Your task to perform on an android device: open app "Gmail" Image 0: 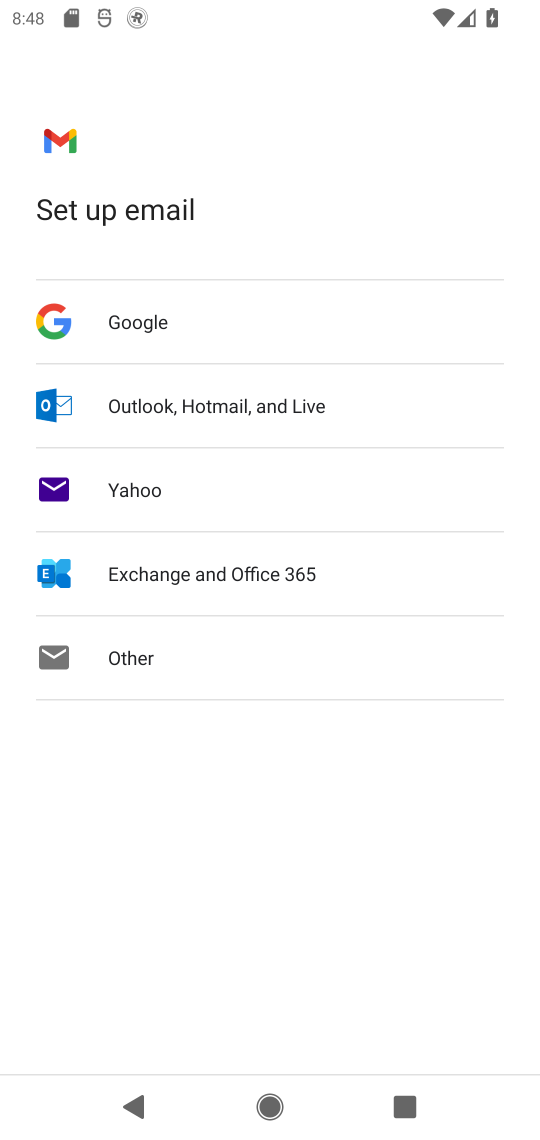
Step 0: press home button
Your task to perform on an android device: open app "Gmail" Image 1: 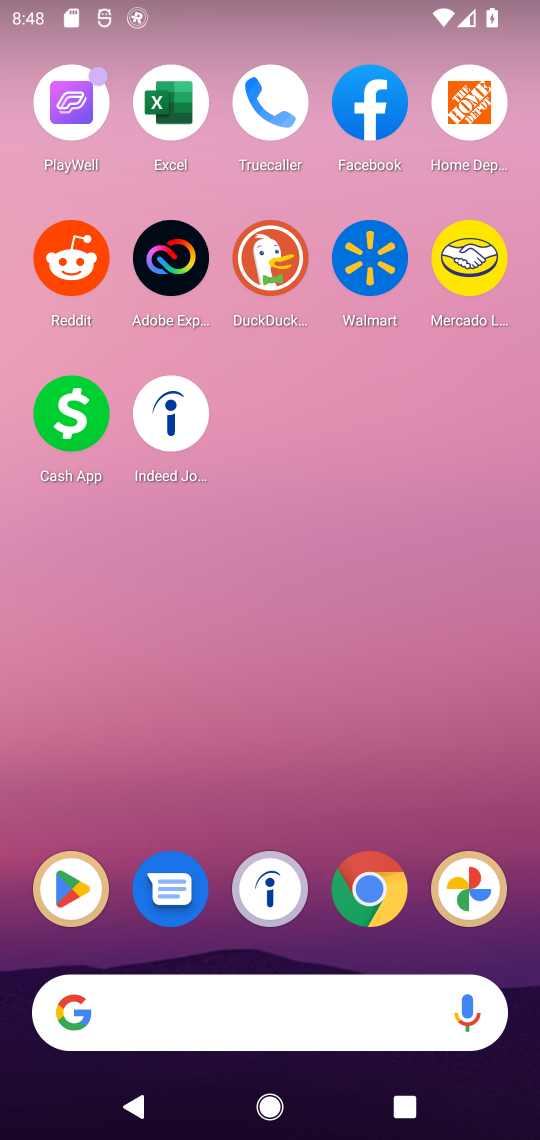
Step 1: press home button
Your task to perform on an android device: open app "Gmail" Image 2: 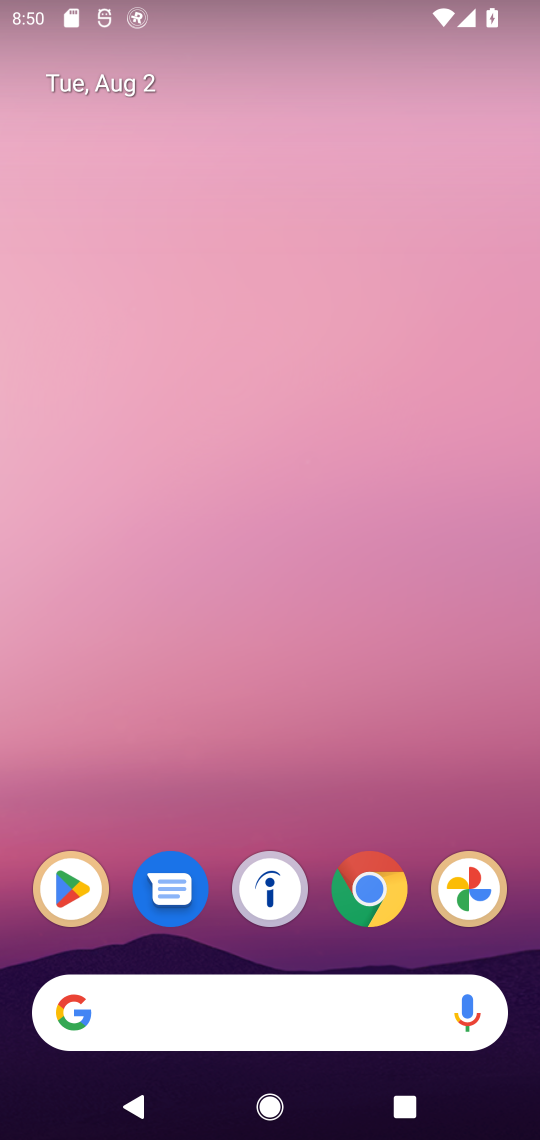
Step 2: click (67, 885)
Your task to perform on an android device: open app "Gmail" Image 3: 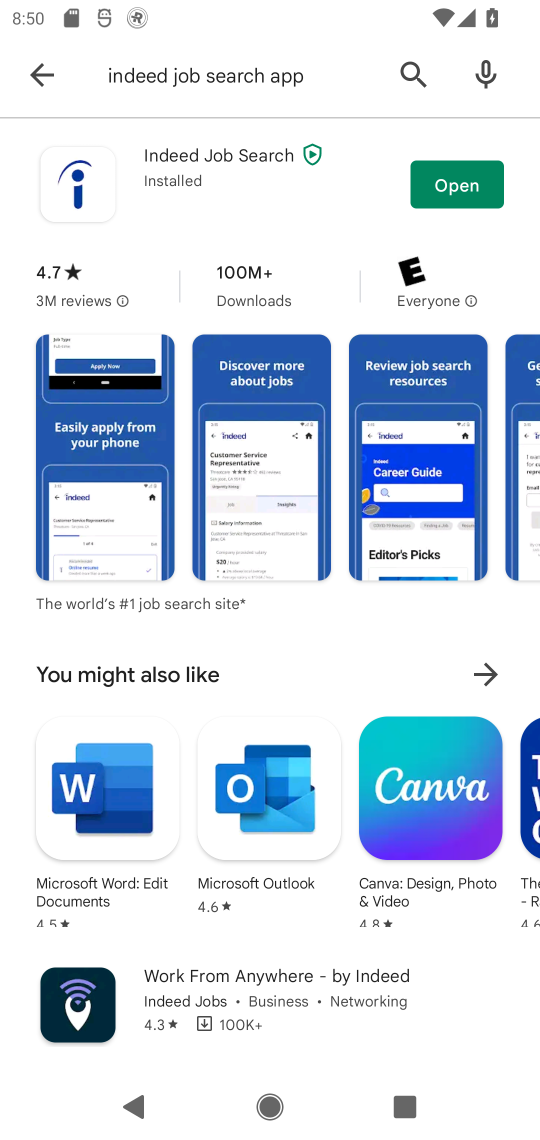
Step 3: click (414, 80)
Your task to perform on an android device: open app "Gmail" Image 4: 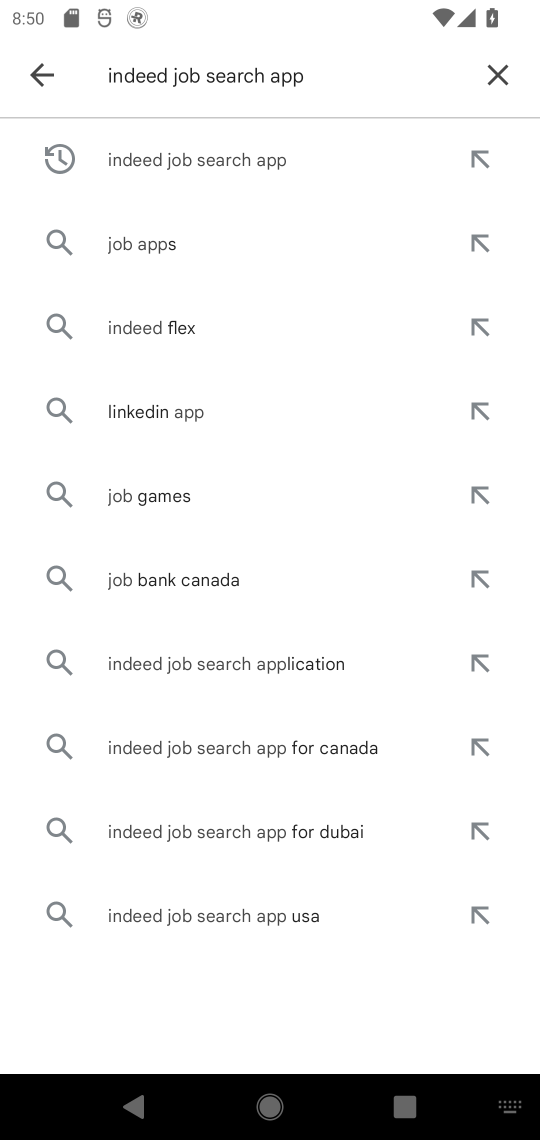
Step 4: click (488, 67)
Your task to perform on an android device: open app "Gmail" Image 5: 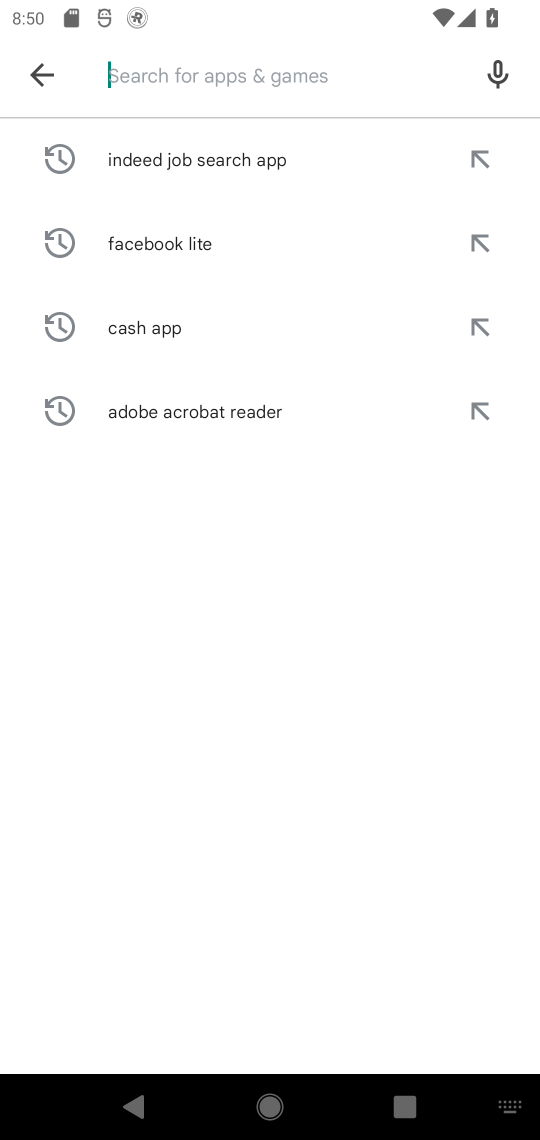
Step 5: type "Gmail"
Your task to perform on an android device: open app "Gmail" Image 6: 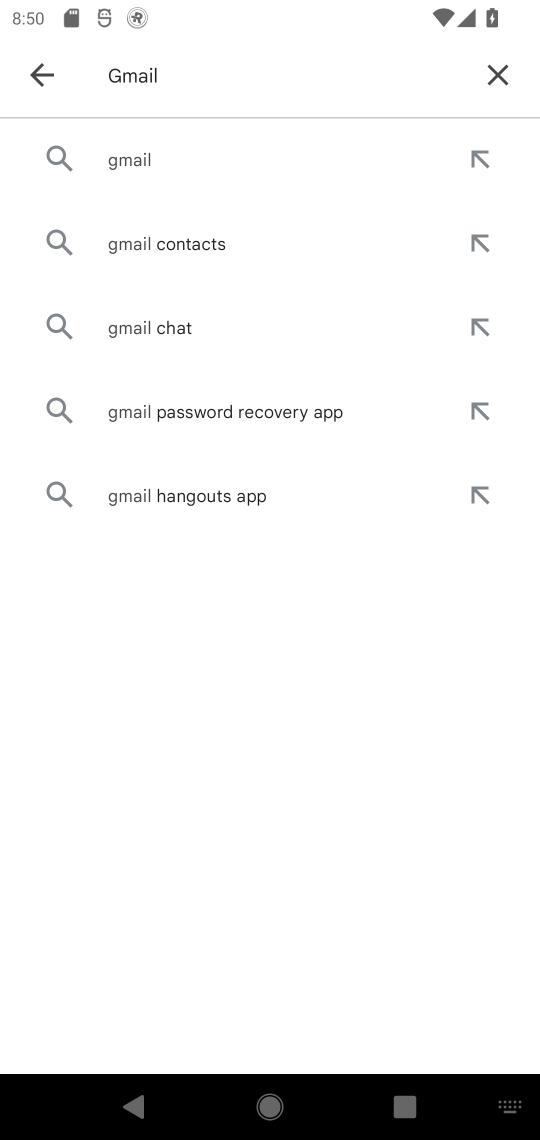
Step 6: click (134, 153)
Your task to perform on an android device: open app "Gmail" Image 7: 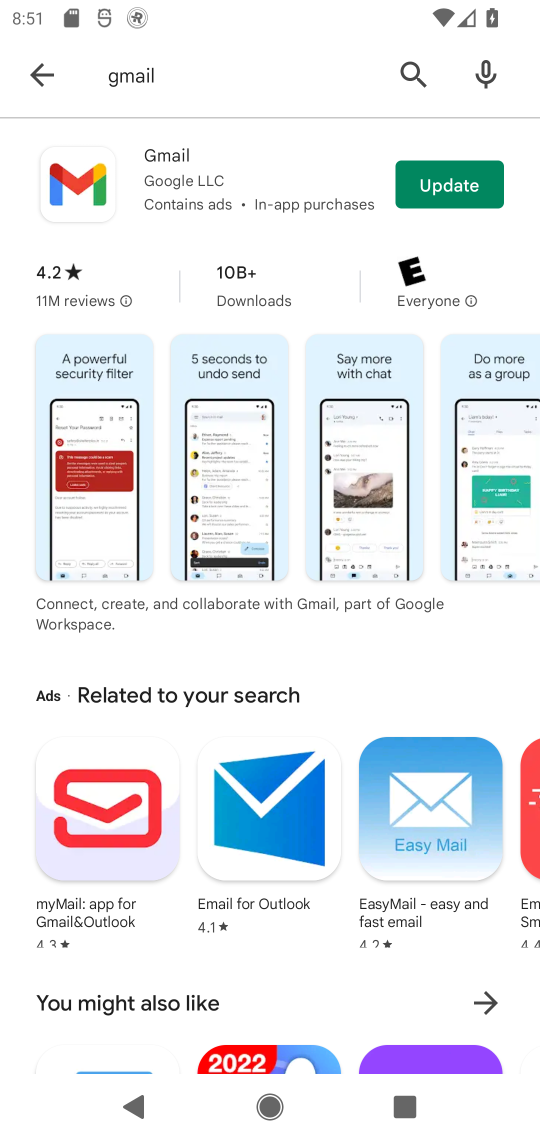
Step 7: click (163, 168)
Your task to perform on an android device: open app "Gmail" Image 8: 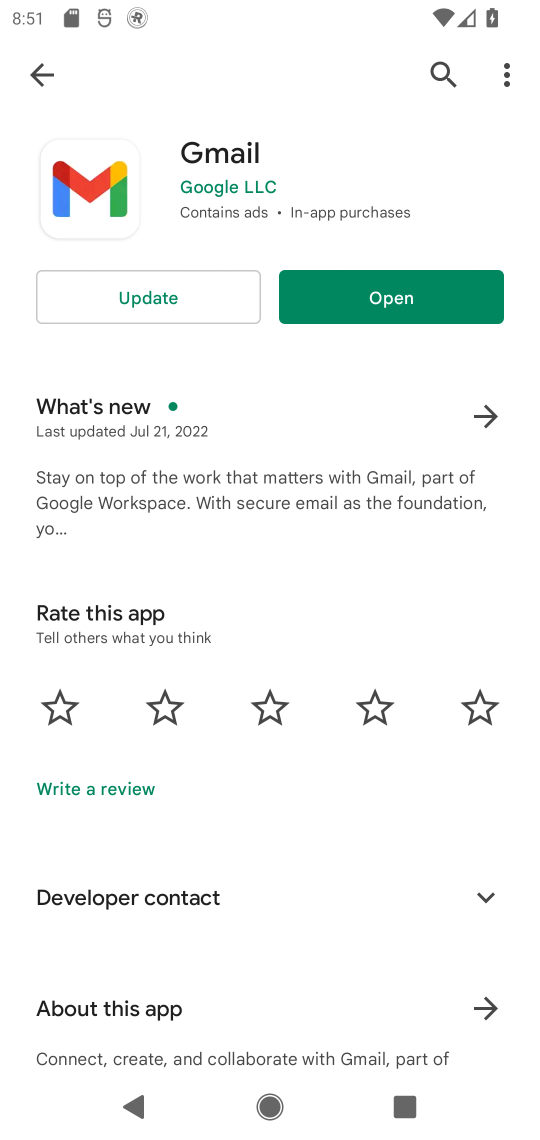
Step 8: click (407, 295)
Your task to perform on an android device: open app "Gmail" Image 9: 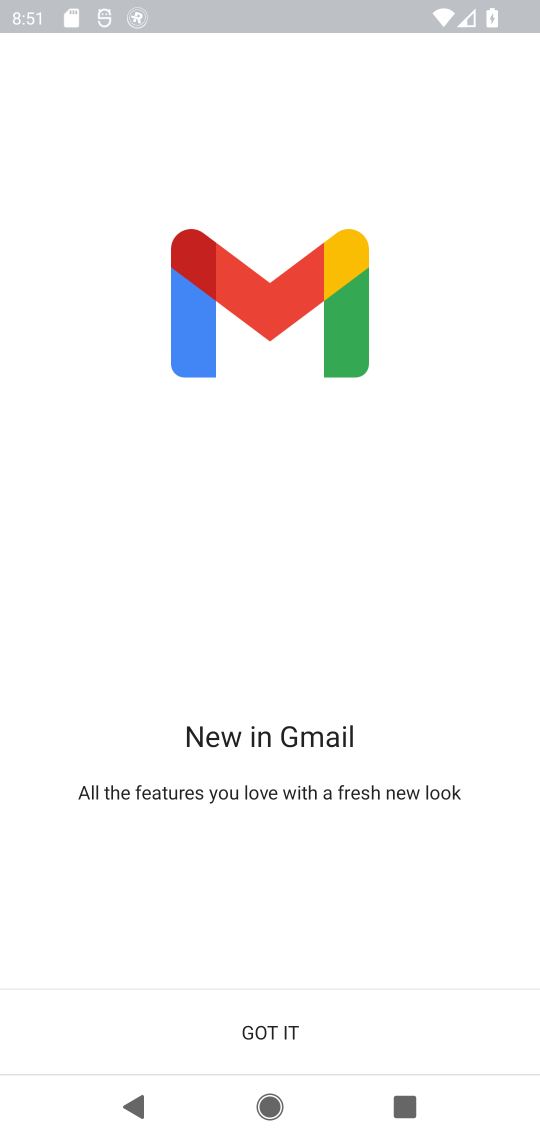
Step 9: task complete